Your task to perform on an android device: Open settings Image 0: 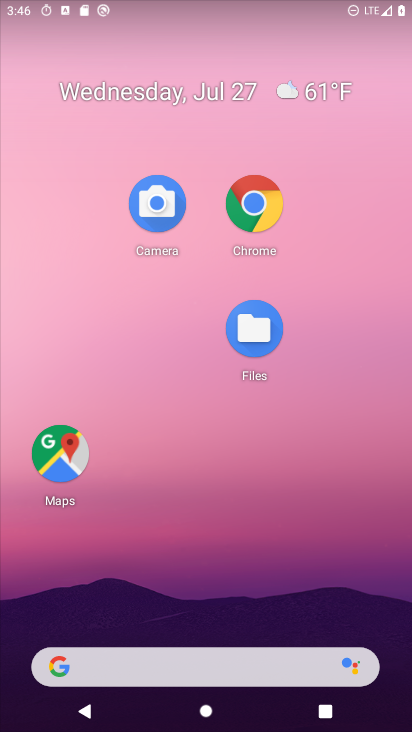
Step 0: drag from (210, 591) to (185, 146)
Your task to perform on an android device: Open settings Image 1: 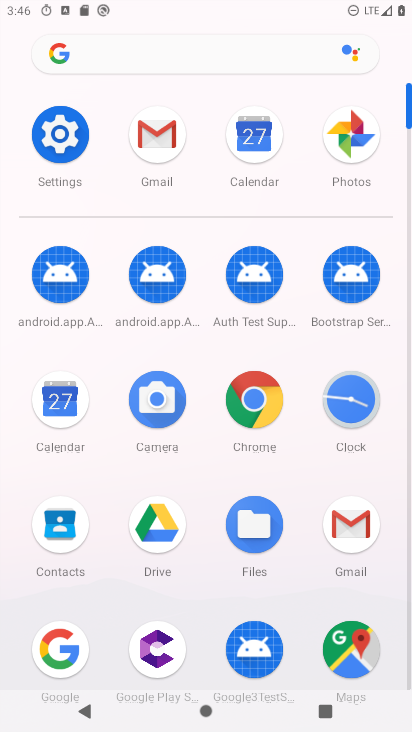
Step 1: click (82, 156)
Your task to perform on an android device: Open settings Image 2: 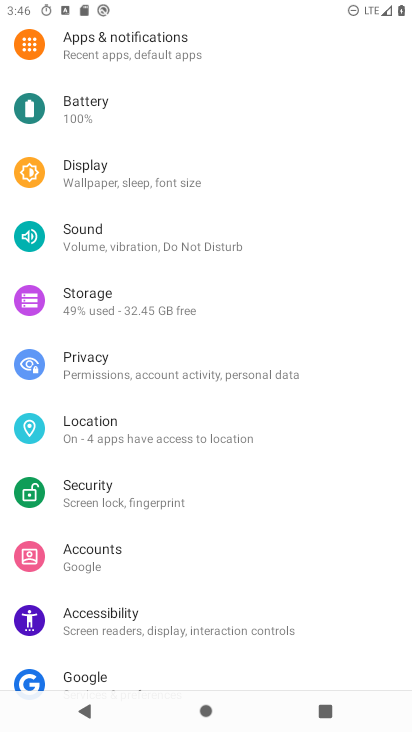
Step 2: task complete